Your task to perform on an android device: change timer sound Image 0: 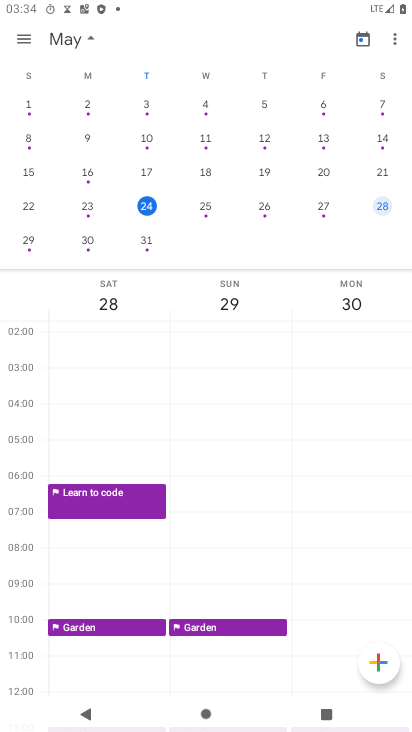
Step 0: press home button
Your task to perform on an android device: change timer sound Image 1: 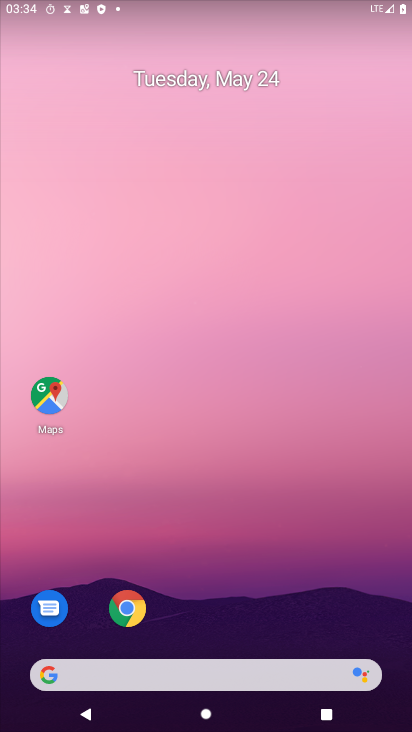
Step 1: drag from (213, 615) to (129, 366)
Your task to perform on an android device: change timer sound Image 2: 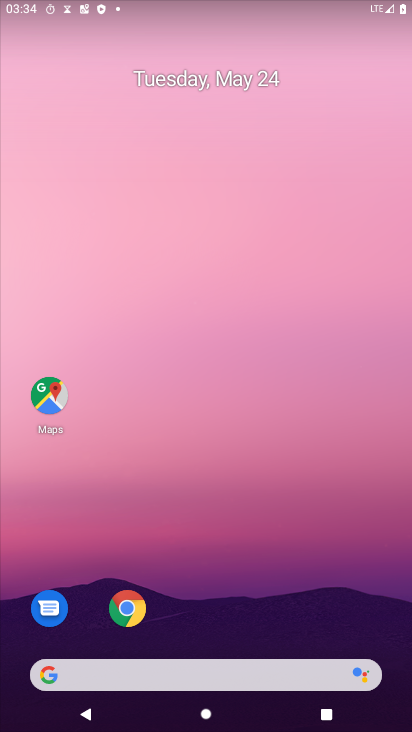
Step 2: drag from (232, 642) to (168, 296)
Your task to perform on an android device: change timer sound Image 3: 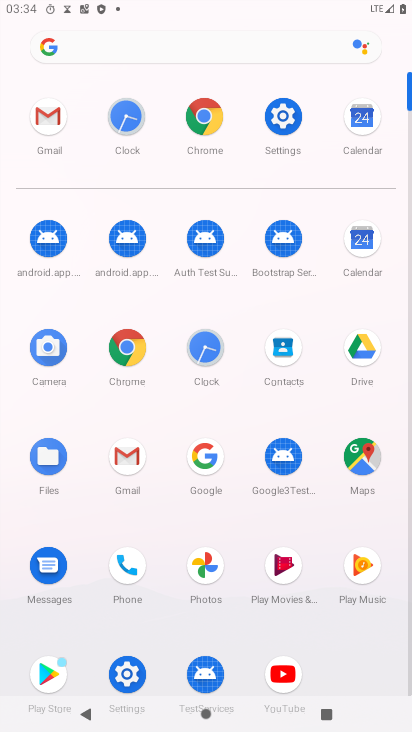
Step 3: click (204, 353)
Your task to perform on an android device: change timer sound Image 4: 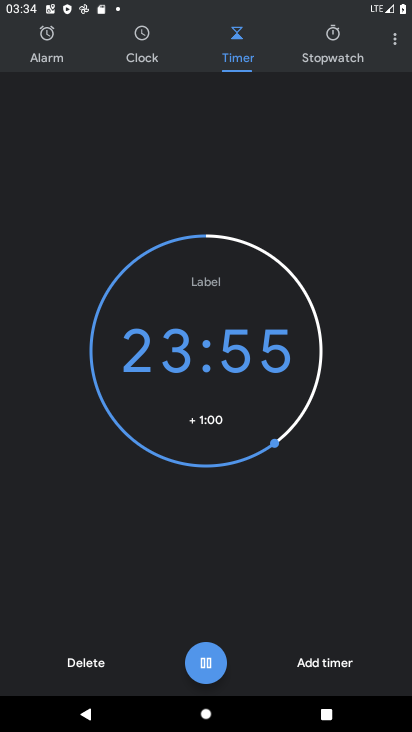
Step 4: click (393, 33)
Your task to perform on an android device: change timer sound Image 5: 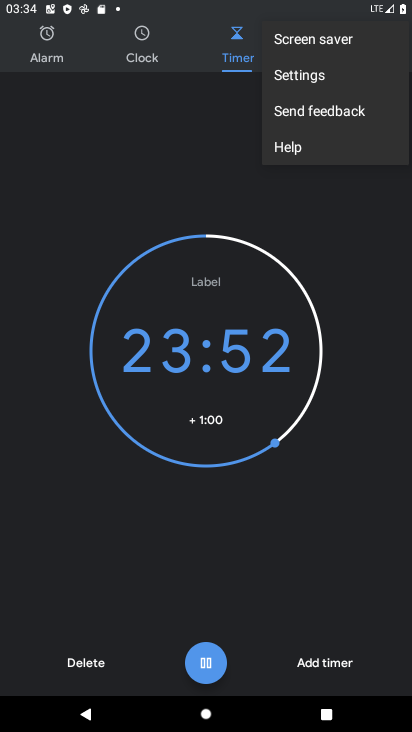
Step 5: click (344, 79)
Your task to perform on an android device: change timer sound Image 6: 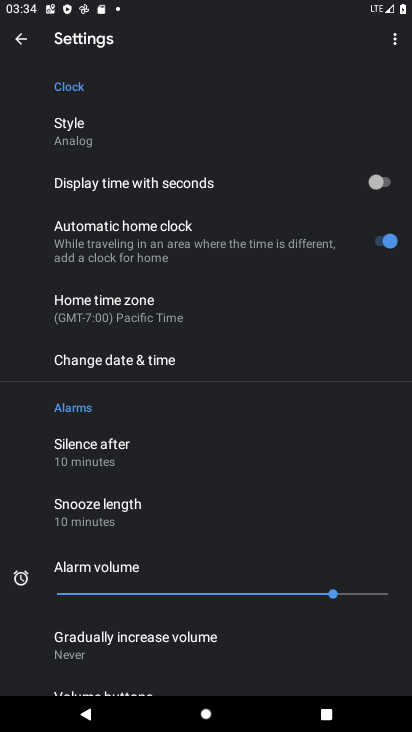
Step 6: drag from (238, 650) to (143, 219)
Your task to perform on an android device: change timer sound Image 7: 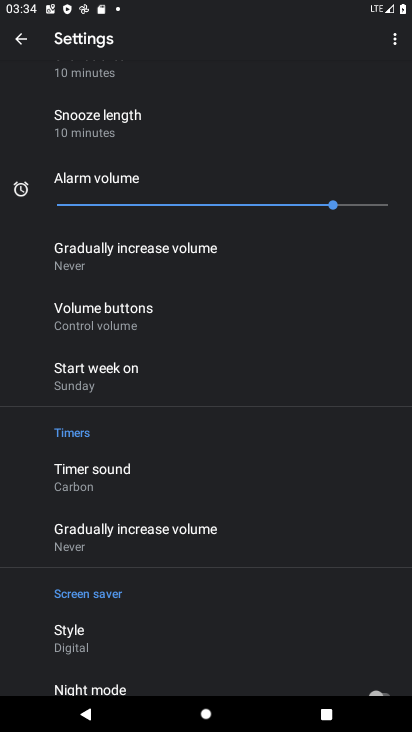
Step 7: click (171, 491)
Your task to perform on an android device: change timer sound Image 8: 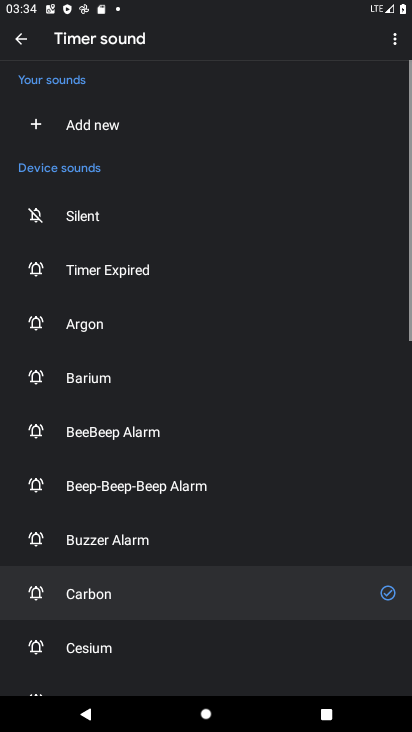
Step 8: click (170, 555)
Your task to perform on an android device: change timer sound Image 9: 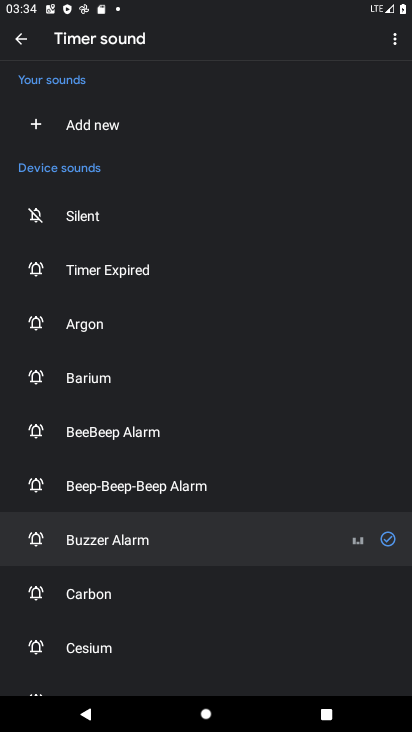
Step 9: task complete